Your task to perform on an android device: What's on my calendar today? Image 0: 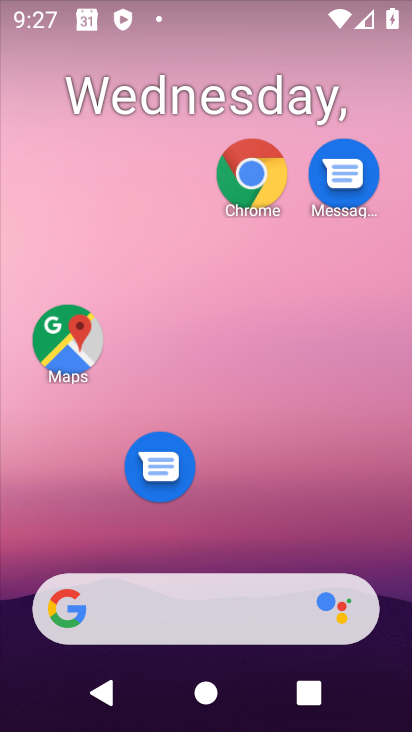
Step 0: drag from (286, 513) to (165, 205)
Your task to perform on an android device: What's on my calendar today? Image 1: 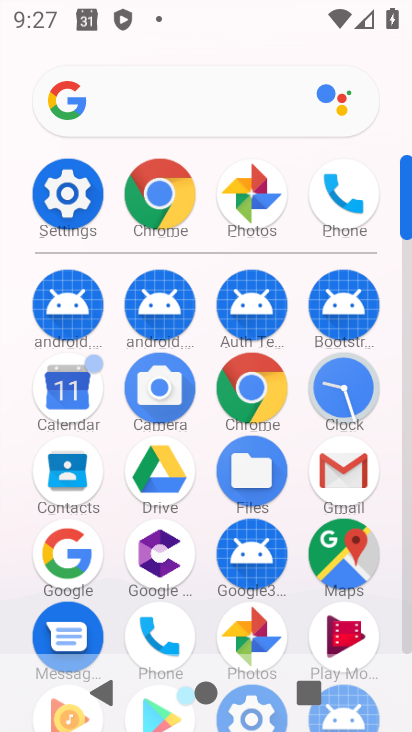
Step 1: drag from (326, 472) to (302, 446)
Your task to perform on an android device: What's on my calendar today? Image 2: 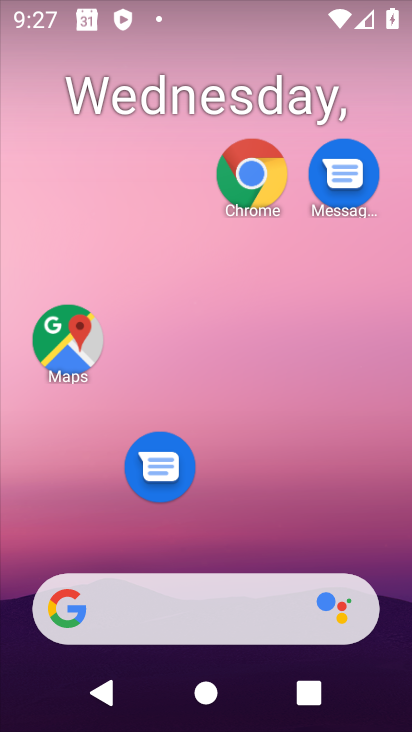
Step 2: click (72, 435)
Your task to perform on an android device: What's on my calendar today? Image 3: 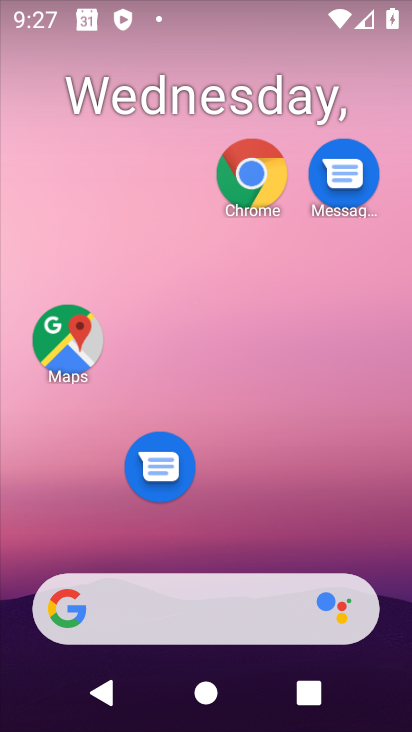
Step 3: click (63, 429)
Your task to perform on an android device: What's on my calendar today? Image 4: 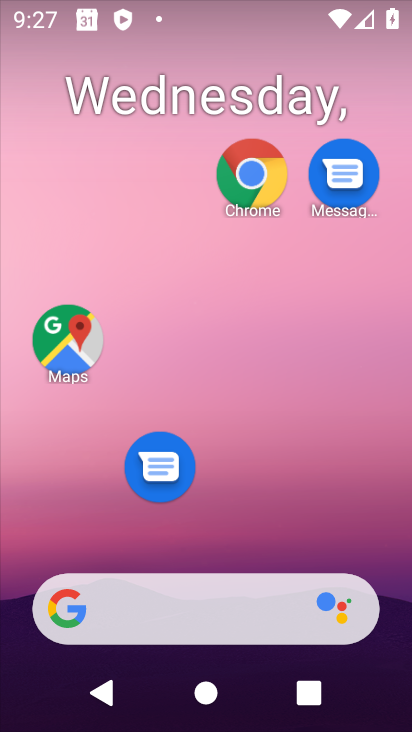
Step 4: drag from (374, 531) to (57, 37)
Your task to perform on an android device: What's on my calendar today? Image 5: 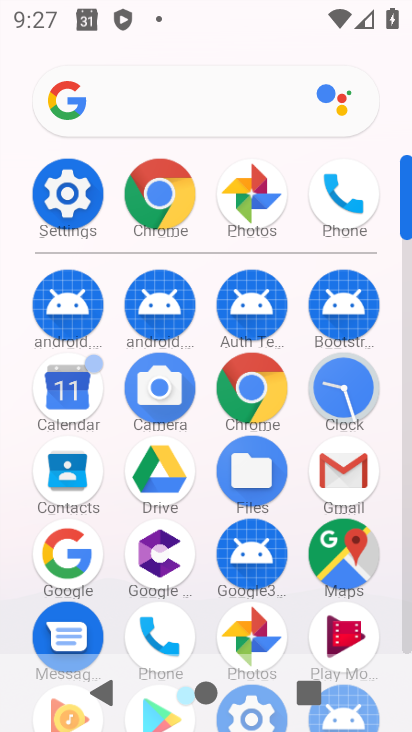
Step 5: drag from (103, 542) to (2, 209)
Your task to perform on an android device: What's on my calendar today? Image 6: 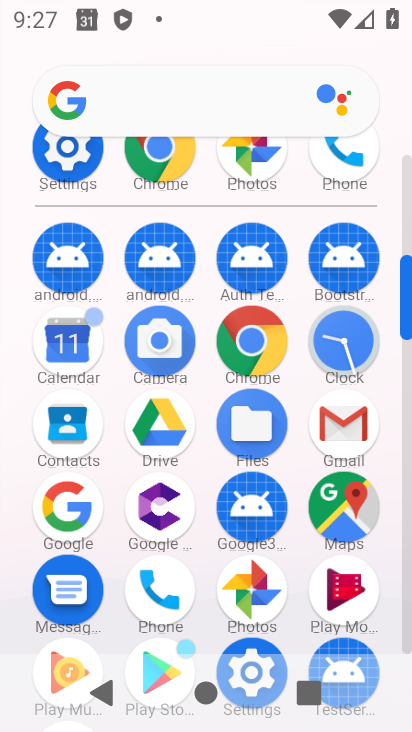
Step 6: click (53, 390)
Your task to perform on an android device: What's on my calendar today? Image 7: 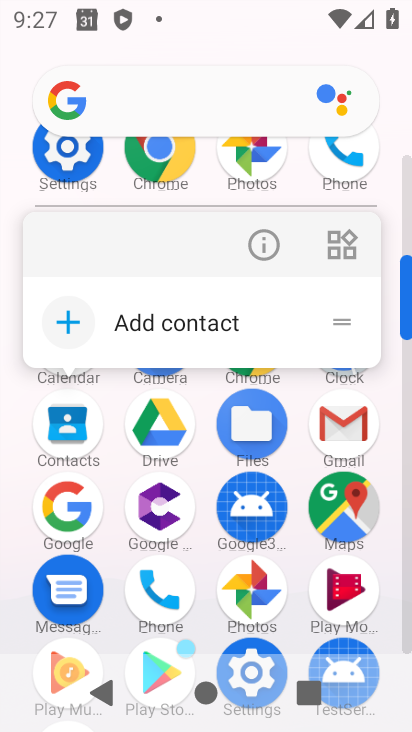
Step 7: click (50, 334)
Your task to perform on an android device: What's on my calendar today? Image 8: 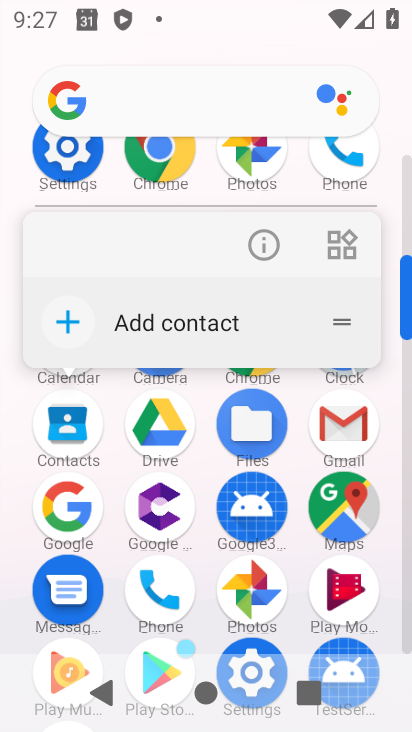
Step 8: click (53, 337)
Your task to perform on an android device: What's on my calendar today? Image 9: 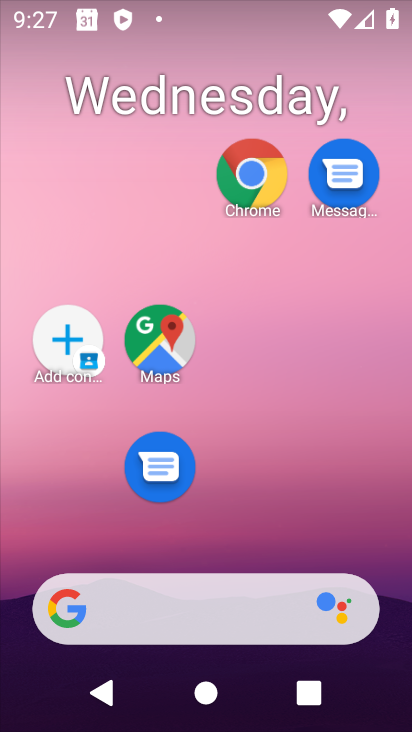
Step 9: press back button
Your task to perform on an android device: What's on my calendar today? Image 10: 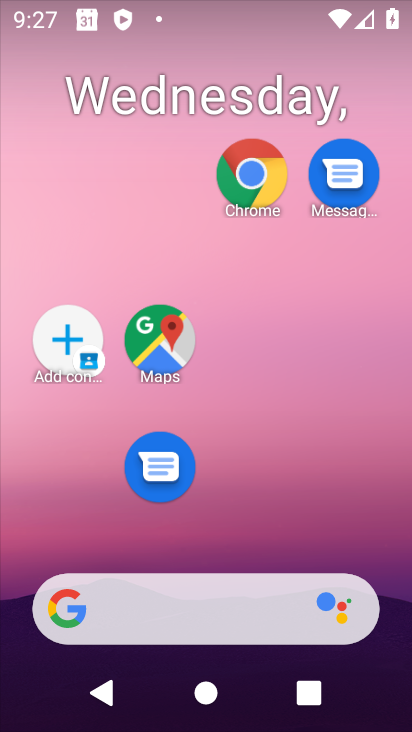
Step 10: drag from (372, 522) to (177, 65)
Your task to perform on an android device: What's on my calendar today? Image 11: 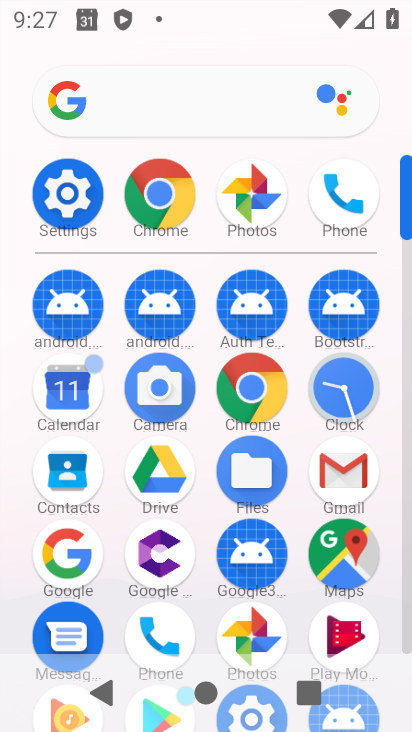
Step 11: click (75, 378)
Your task to perform on an android device: What's on my calendar today? Image 12: 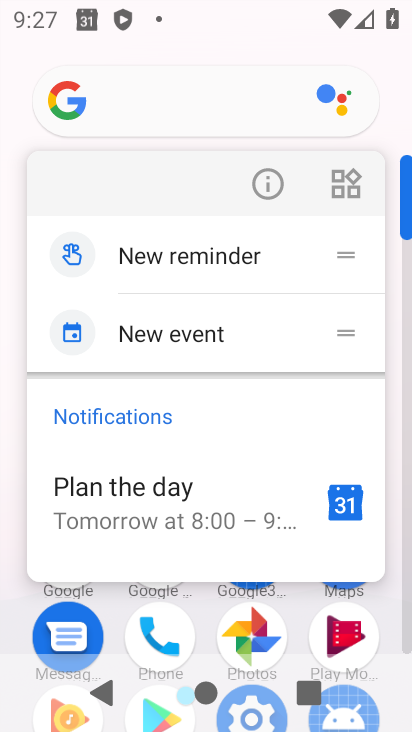
Step 12: click (392, 449)
Your task to perform on an android device: What's on my calendar today? Image 13: 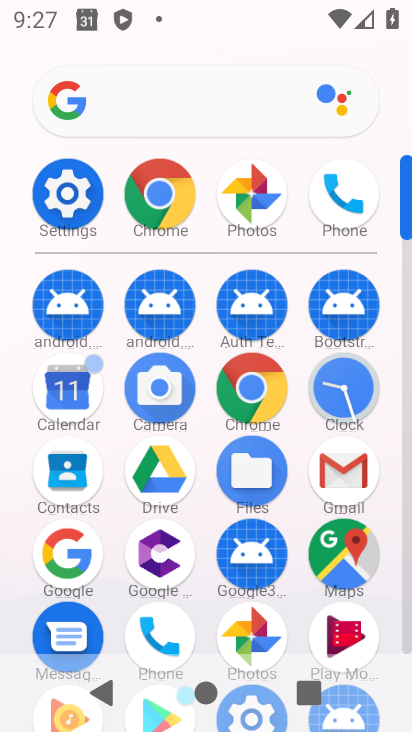
Step 13: press back button
Your task to perform on an android device: What's on my calendar today? Image 14: 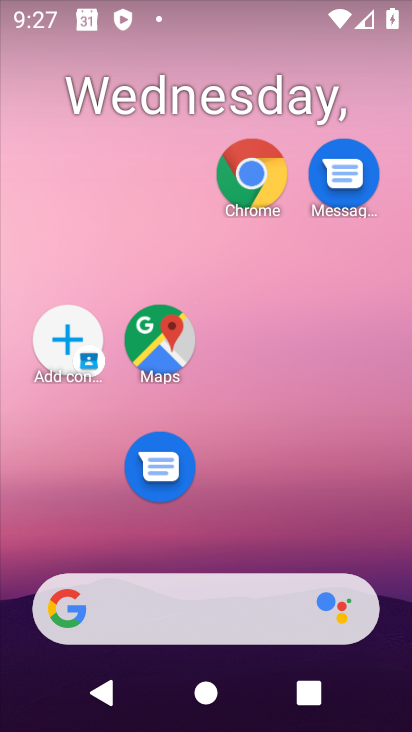
Step 14: click (4, 328)
Your task to perform on an android device: What's on my calendar today? Image 15: 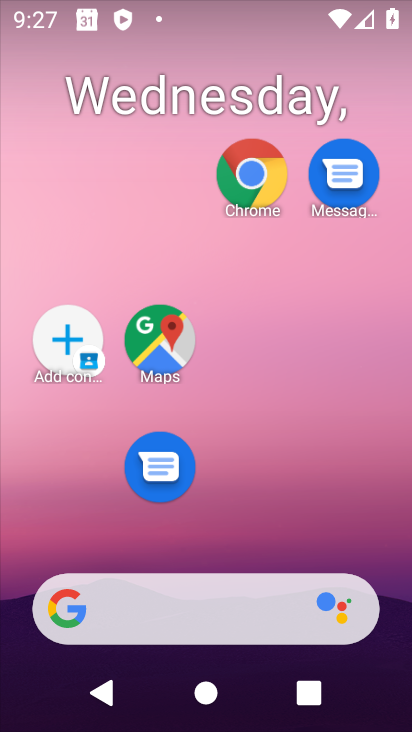
Step 15: click (52, 377)
Your task to perform on an android device: What's on my calendar today? Image 16: 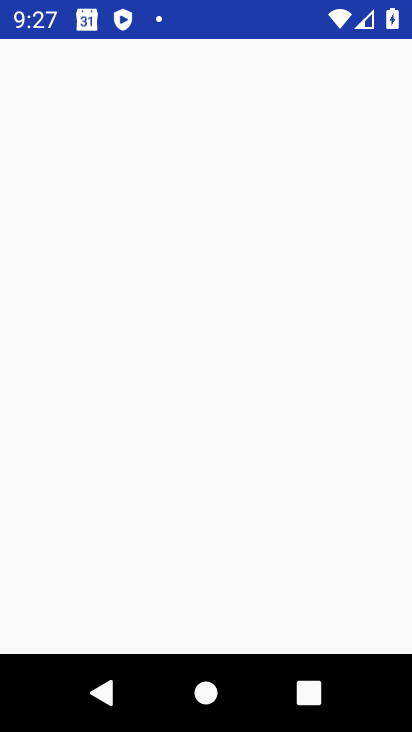
Step 16: drag from (263, 354) to (148, 2)
Your task to perform on an android device: What's on my calendar today? Image 17: 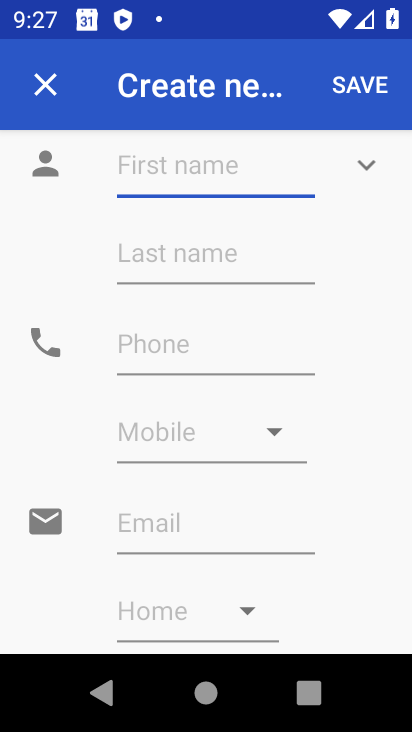
Step 17: click (30, 67)
Your task to perform on an android device: What's on my calendar today? Image 18: 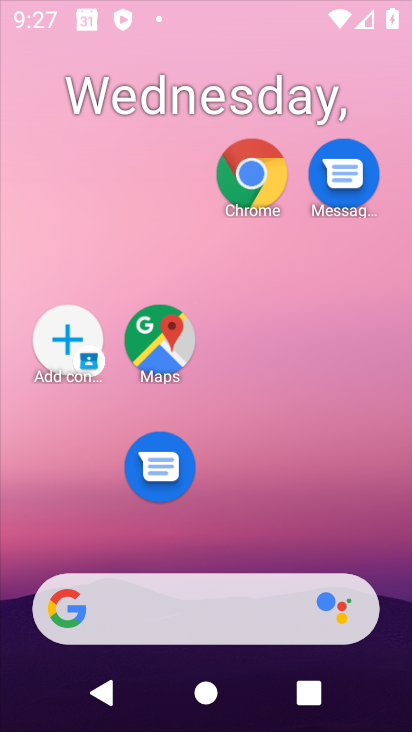
Step 18: click (51, 87)
Your task to perform on an android device: What's on my calendar today? Image 19: 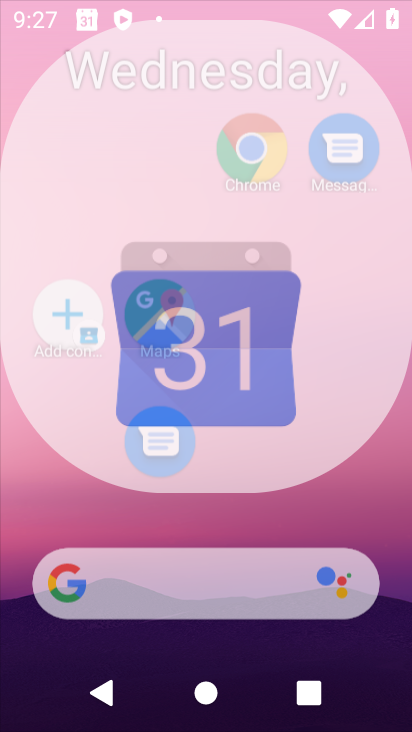
Step 19: task complete